Your task to perform on an android device: add a contact in the contacts app Image 0: 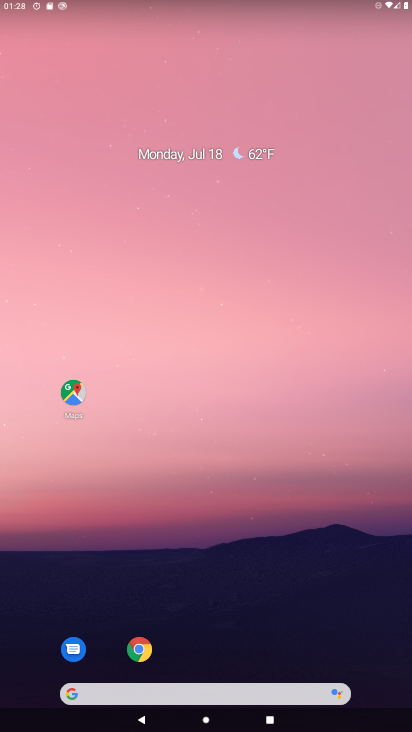
Step 0: drag from (43, 720) to (199, 289)
Your task to perform on an android device: add a contact in the contacts app Image 1: 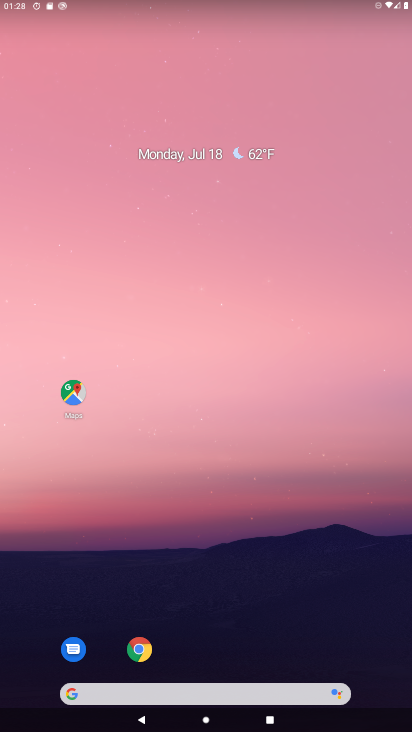
Step 1: drag from (22, 725) to (294, 19)
Your task to perform on an android device: add a contact in the contacts app Image 2: 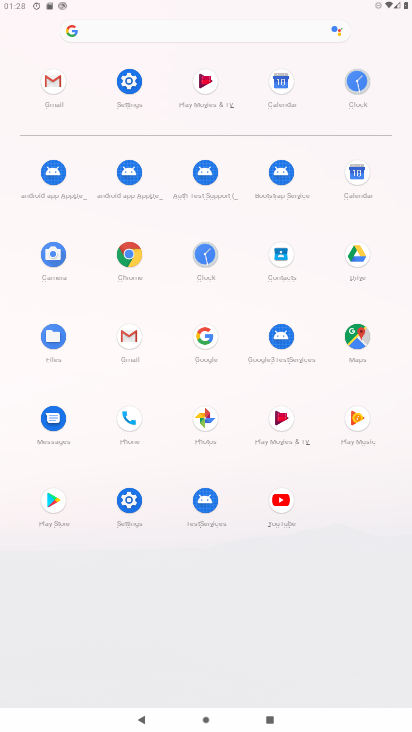
Step 2: click (278, 264)
Your task to perform on an android device: add a contact in the contacts app Image 3: 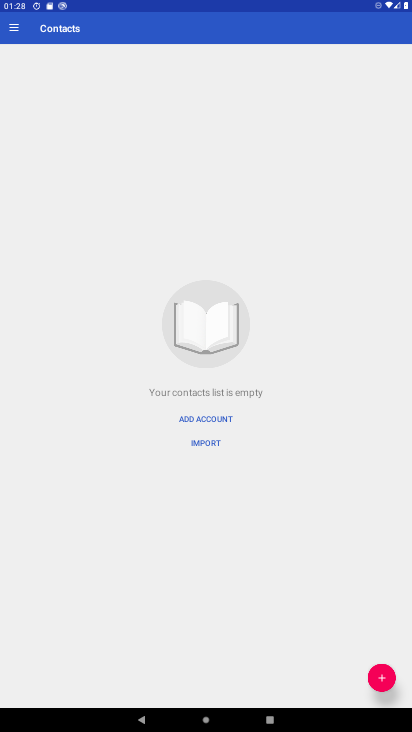
Step 3: click (389, 680)
Your task to perform on an android device: add a contact in the contacts app Image 4: 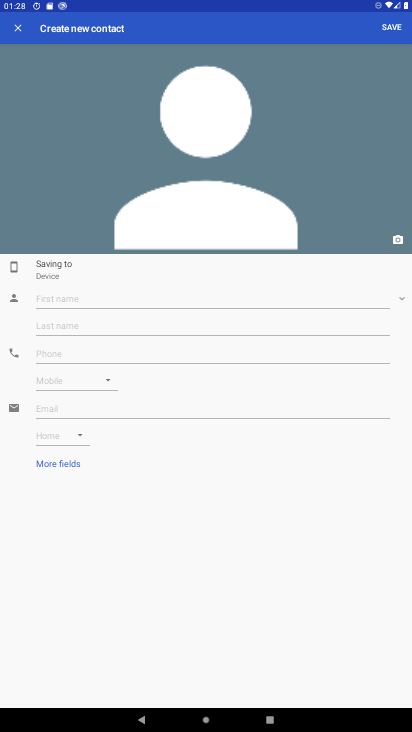
Step 4: click (84, 301)
Your task to perform on an android device: add a contact in the contacts app Image 5: 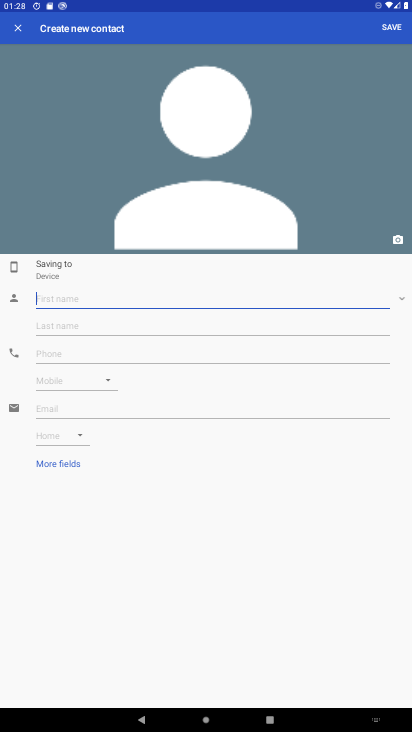
Step 5: type "rthjftj"
Your task to perform on an android device: add a contact in the contacts app Image 6: 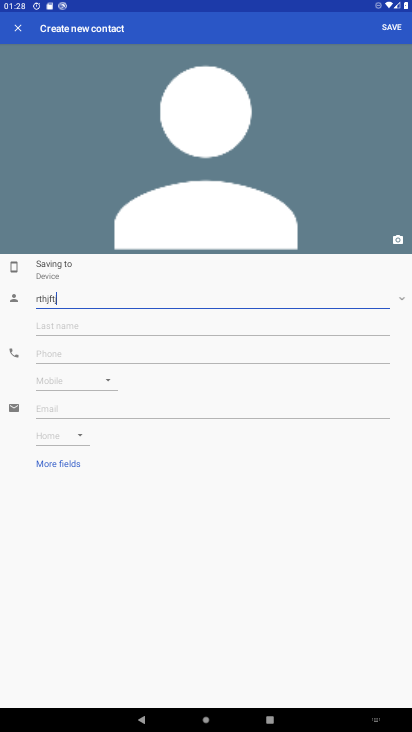
Step 6: type ""
Your task to perform on an android device: add a contact in the contacts app Image 7: 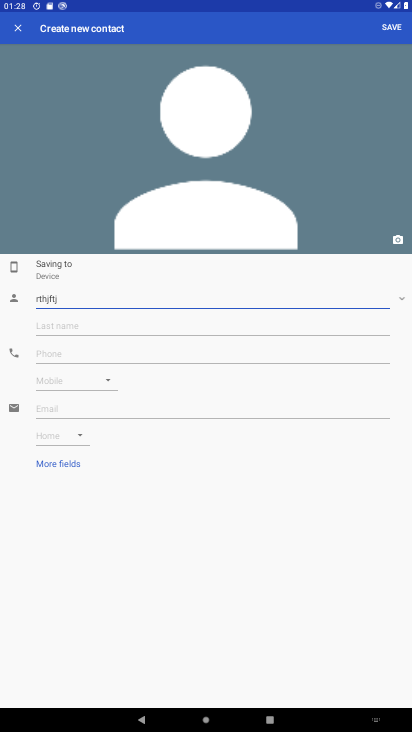
Step 7: click (398, 38)
Your task to perform on an android device: add a contact in the contacts app Image 8: 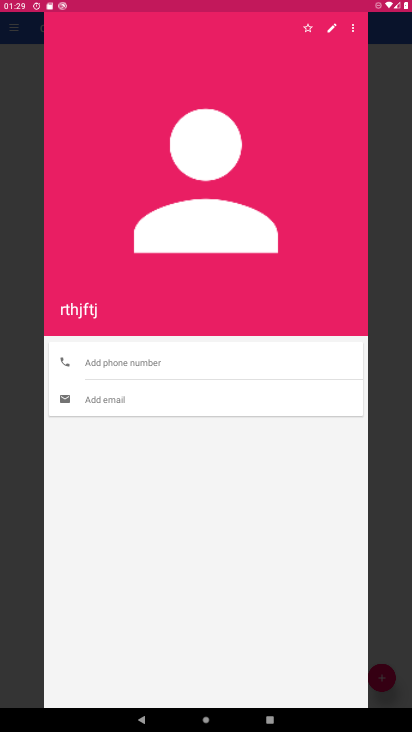
Step 8: press home button
Your task to perform on an android device: add a contact in the contacts app Image 9: 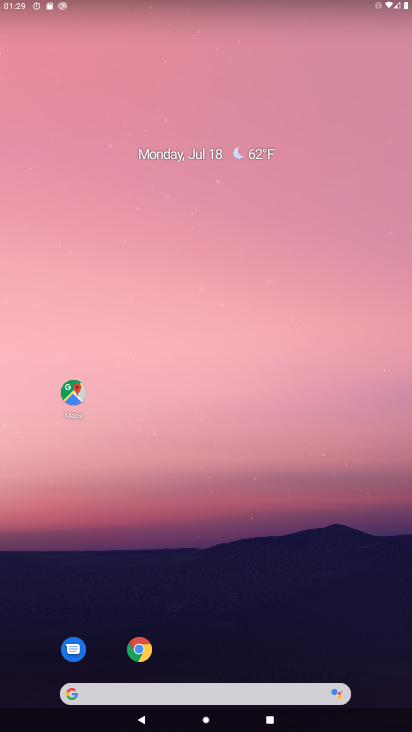
Step 9: drag from (157, 481) to (230, 251)
Your task to perform on an android device: add a contact in the contacts app Image 10: 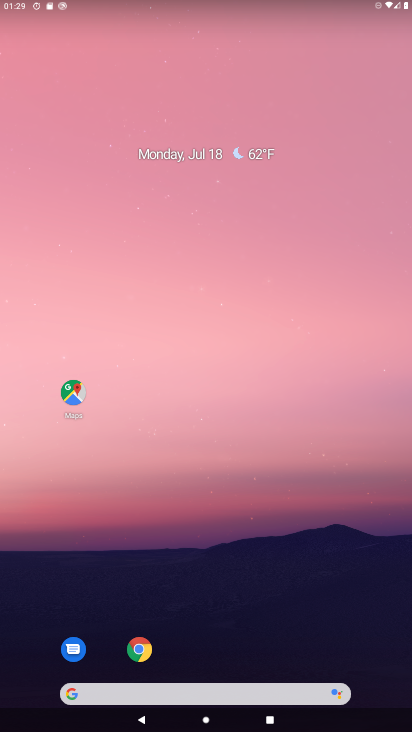
Step 10: drag from (31, 665) to (225, 104)
Your task to perform on an android device: add a contact in the contacts app Image 11: 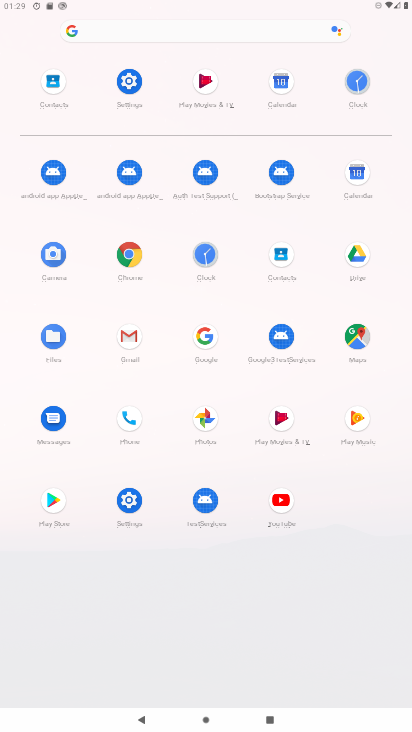
Step 11: click (275, 254)
Your task to perform on an android device: add a contact in the contacts app Image 12: 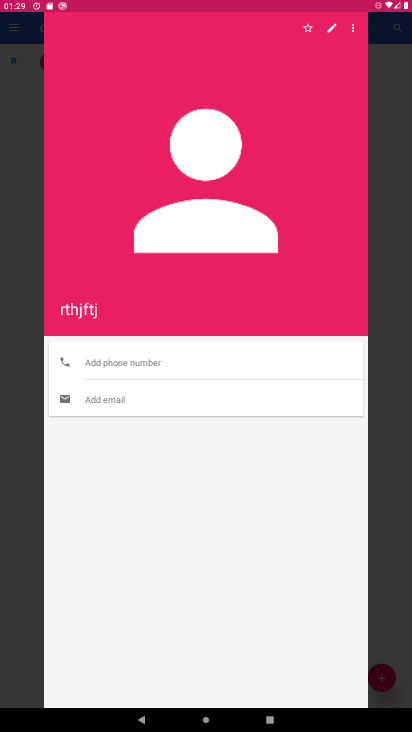
Step 12: click (386, 357)
Your task to perform on an android device: add a contact in the contacts app Image 13: 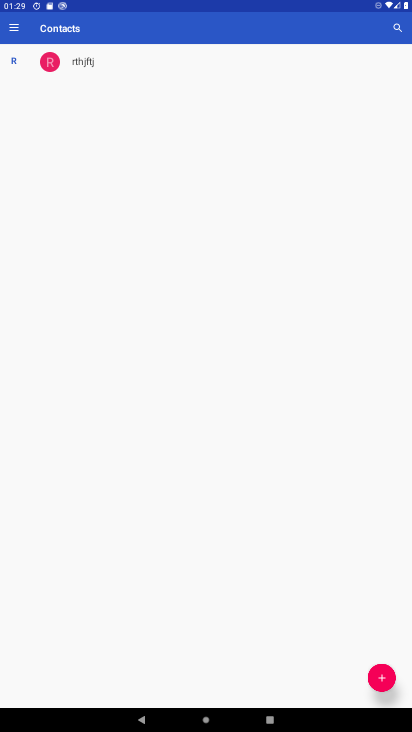
Step 13: click (373, 675)
Your task to perform on an android device: add a contact in the contacts app Image 14: 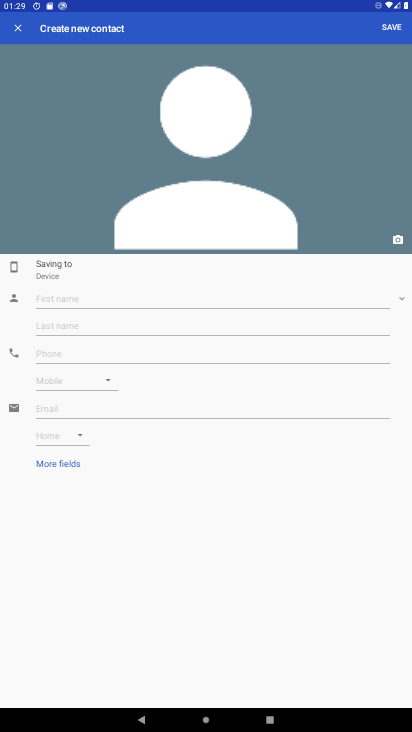
Step 14: click (89, 293)
Your task to perform on an android device: add a contact in the contacts app Image 15: 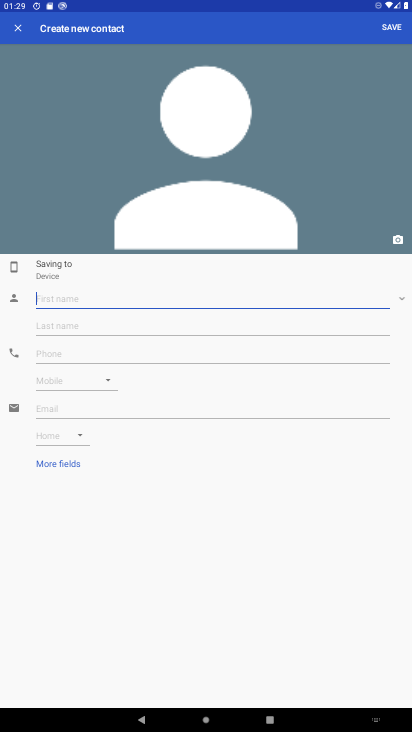
Step 15: type "hjkfyt"
Your task to perform on an android device: add a contact in the contacts app Image 16: 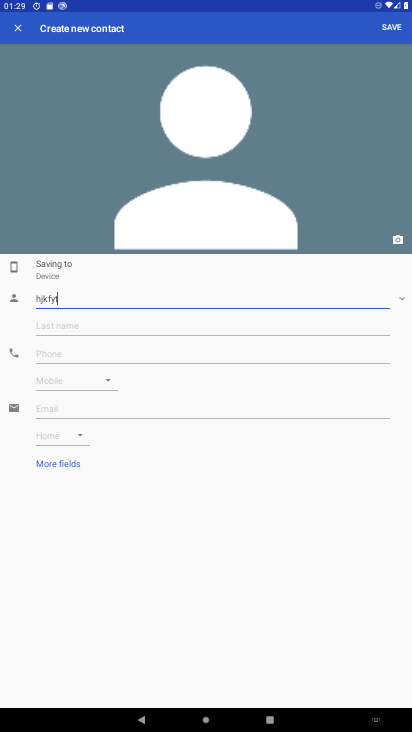
Step 16: type ""
Your task to perform on an android device: add a contact in the contacts app Image 17: 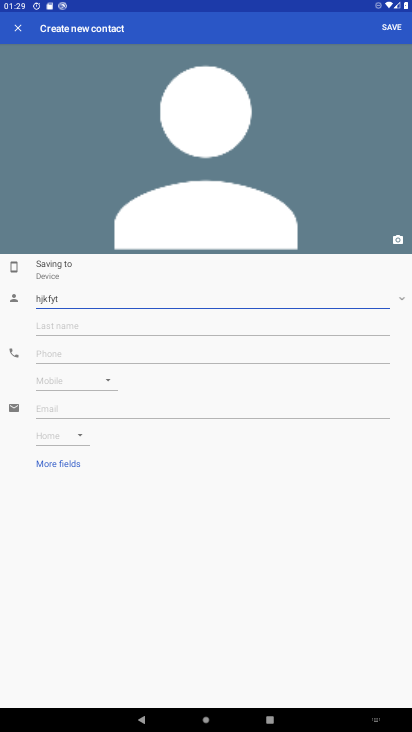
Step 17: click (390, 25)
Your task to perform on an android device: add a contact in the contacts app Image 18: 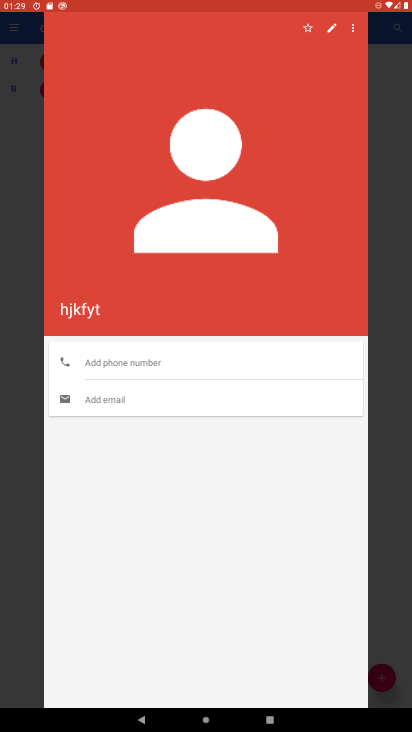
Step 18: task complete